Your task to perform on an android device: Open Wikipedia Image 0: 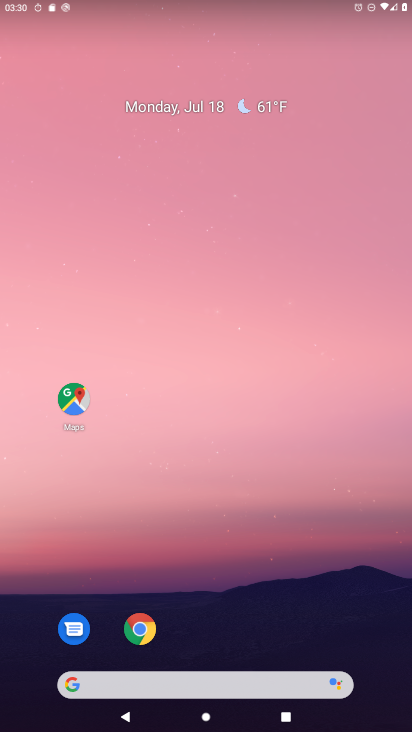
Step 0: click (141, 628)
Your task to perform on an android device: Open Wikipedia Image 1: 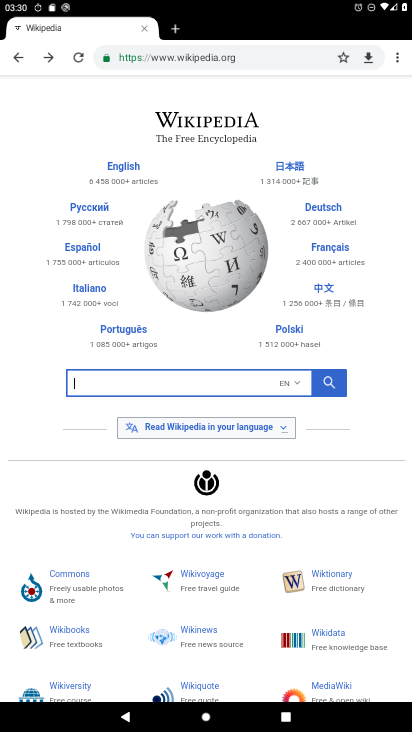
Step 1: click (256, 56)
Your task to perform on an android device: Open Wikipedia Image 2: 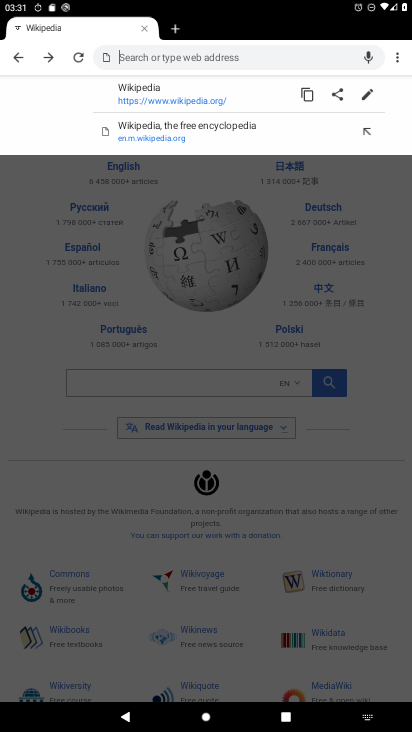
Step 2: type "Wikipedia"
Your task to perform on an android device: Open Wikipedia Image 3: 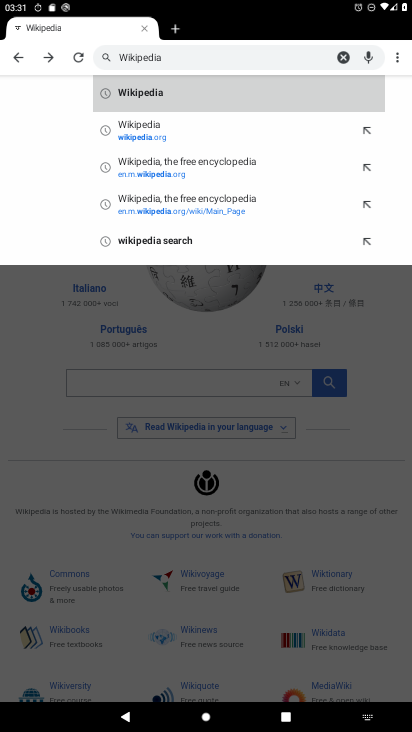
Step 3: click (133, 85)
Your task to perform on an android device: Open Wikipedia Image 4: 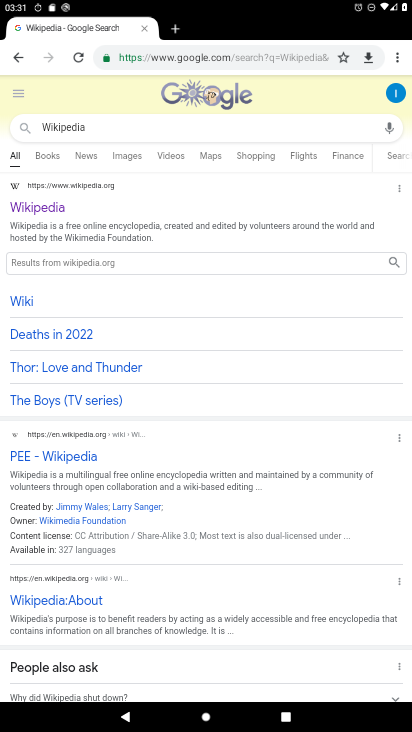
Step 4: click (50, 213)
Your task to perform on an android device: Open Wikipedia Image 5: 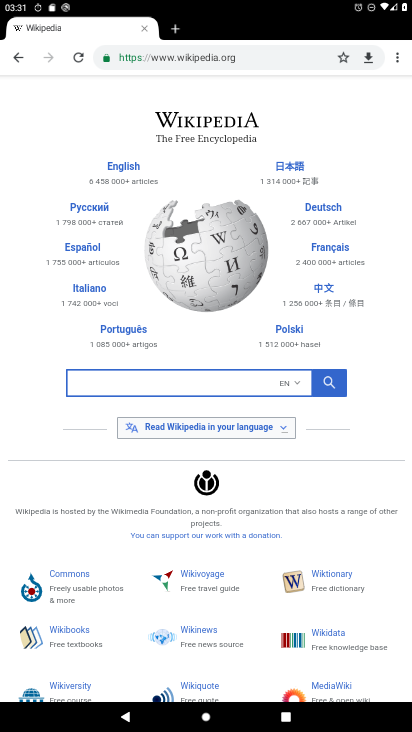
Step 5: task complete